Your task to perform on an android device: set the stopwatch Image 0: 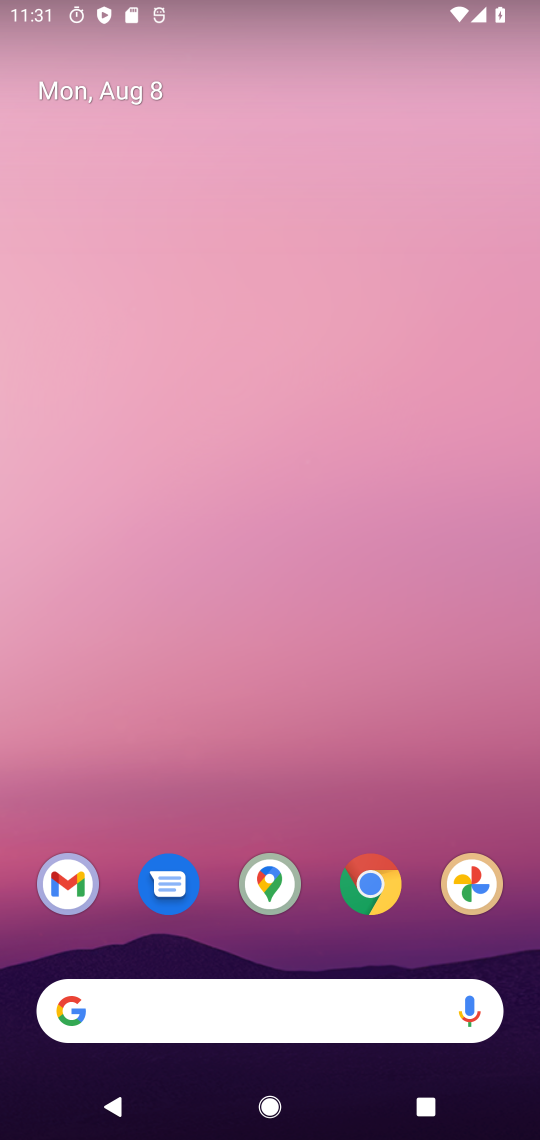
Step 0: drag from (278, 627) to (354, 201)
Your task to perform on an android device: set the stopwatch Image 1: 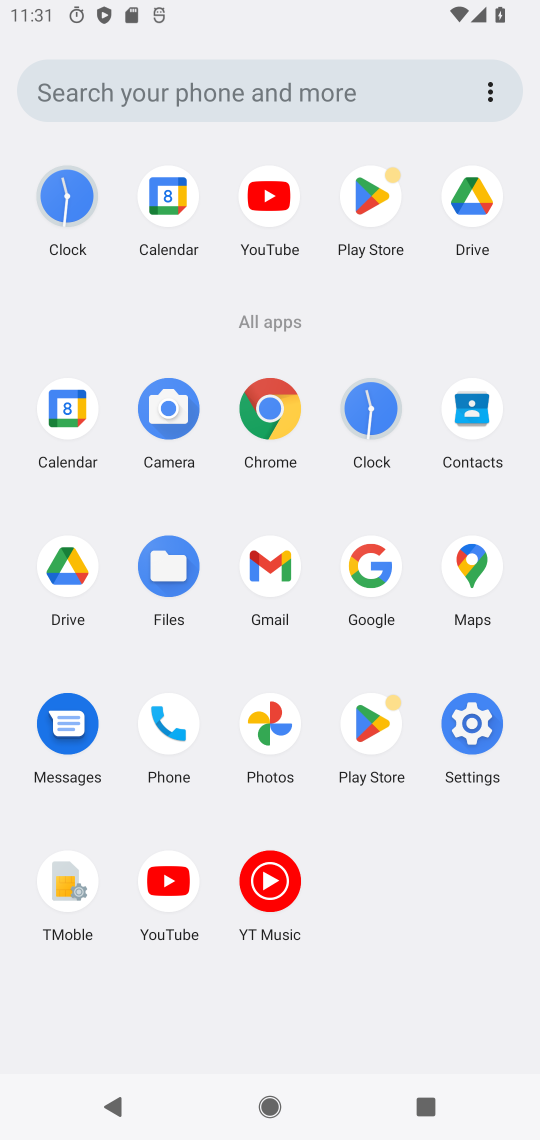
Step 1: click (381, 410)
Your task to perform on an android device: set the stopwatch Image 2: 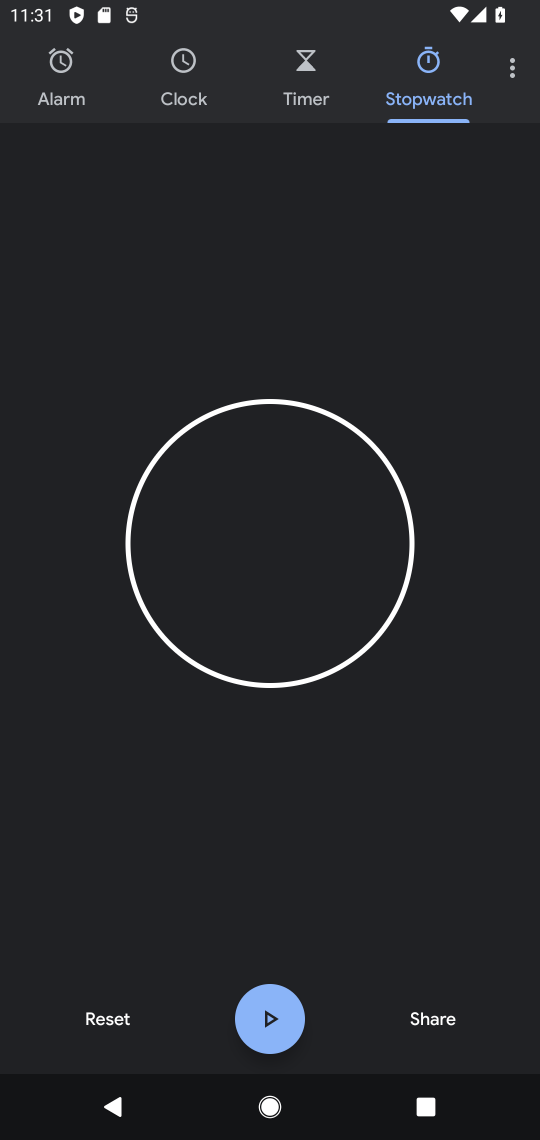
Step 2: click (109, 1019)
Your task to perform on an android device: set the stopwatch Image 3: 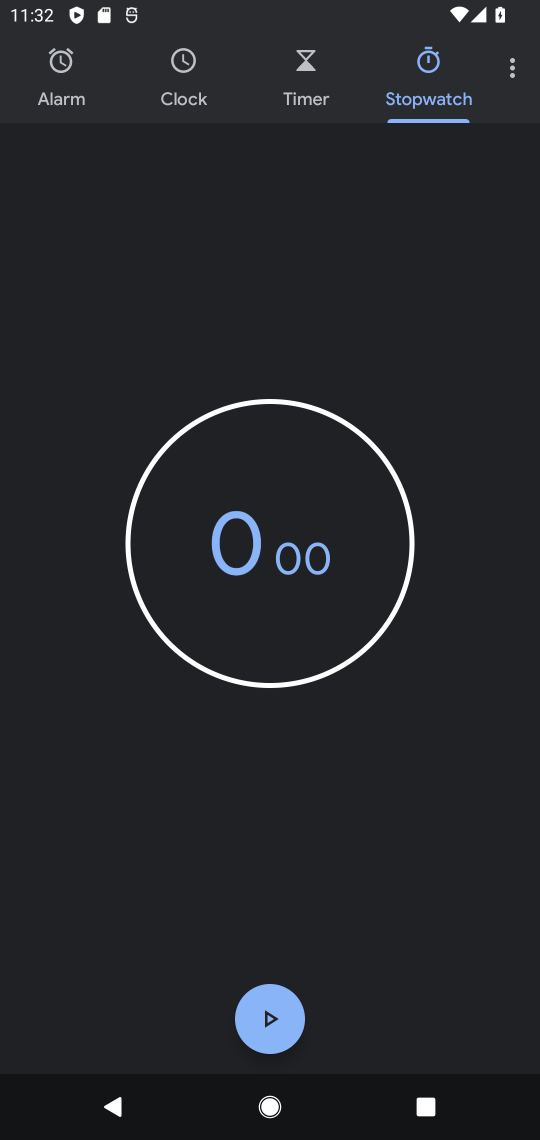
Step 3: click (266, 1010)
Your task to perform on an android device: set the stopwatch Image 4: 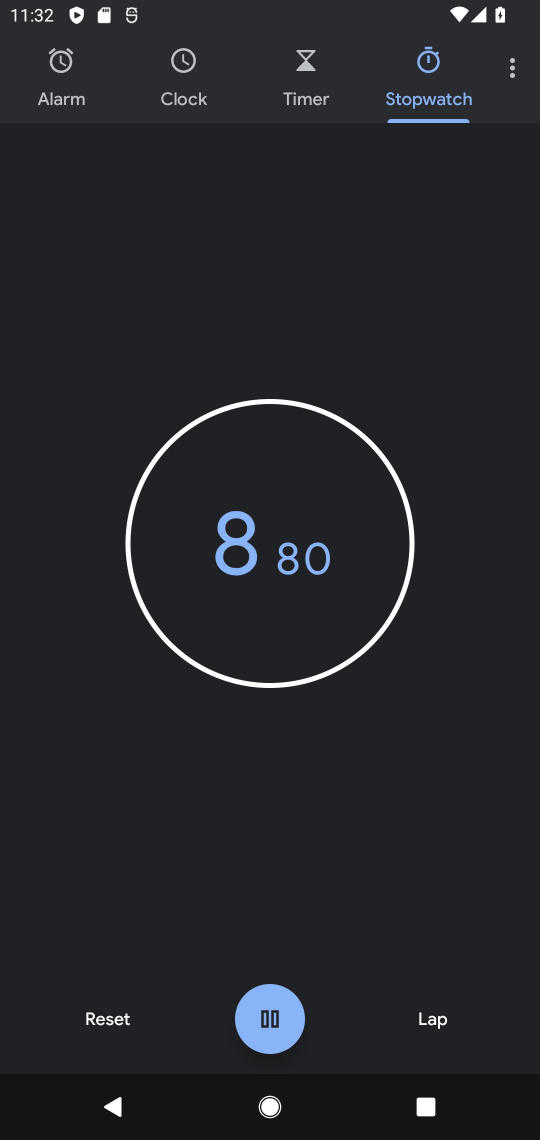
Step 4: click (266, 1010)
Your task to perform on an android device: set the stopwatch Image 5: 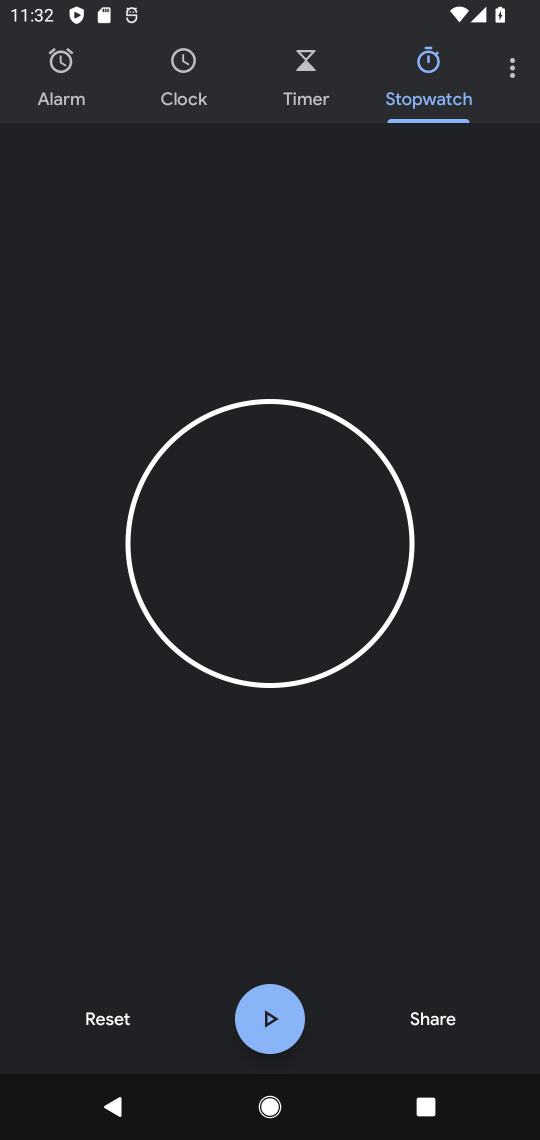
Step 5: task complete